Your task to perform on an android device: add a contact in the contacts app Image 0: 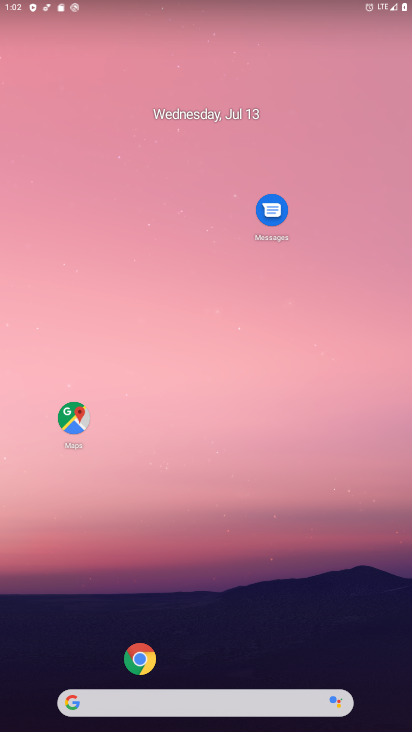
Step 0: drag from (97, 452) to (235, 60)
Your task to perform on an android device: add a contact in the contacts app Image 1: 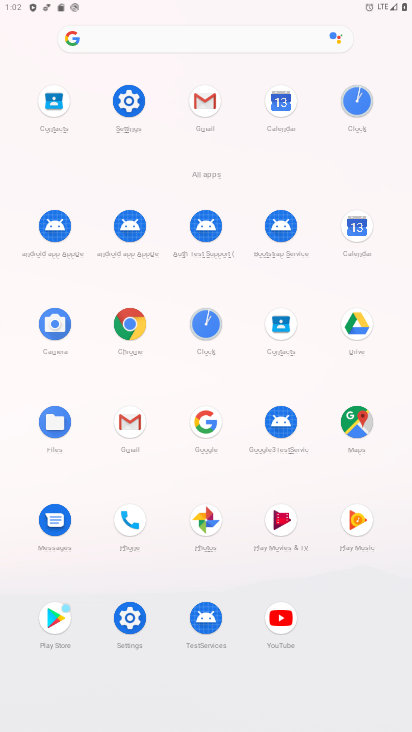
Step 1: click (136, 620)
Your task to perform on an android device: add a contact in the contacts app Image 2: 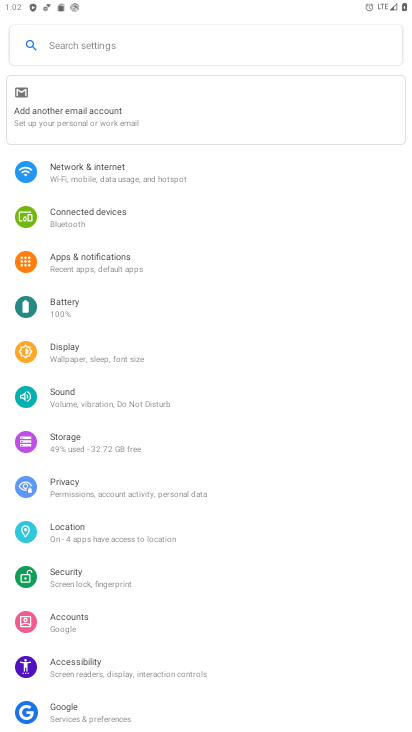
Step 2: press home button
Your task to perform on an android device: add a contact in the contacts app Image 3: 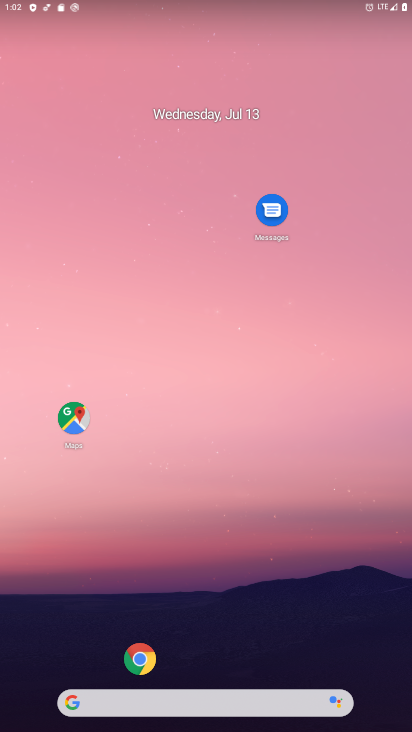
Step 3: drag from (21, 686) to (366, 46)
Your task to perform on an android device: add a contact in the contacts app Image 4: 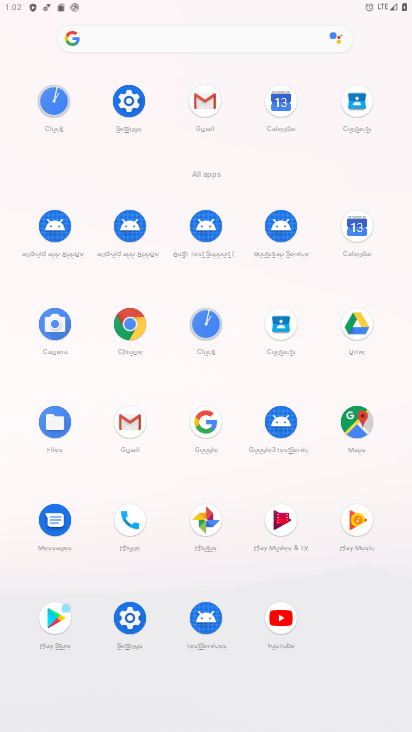
Step 4: click (365, 98)
Your task to perform on an android device: add a contact in the contacts app Image 5: 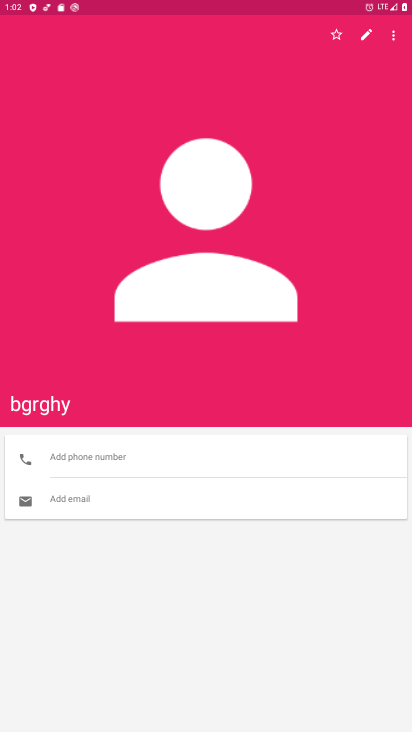
Step 5: task complete